Your task to perform on an android device: visit the assistant section in the google photos Image 0: 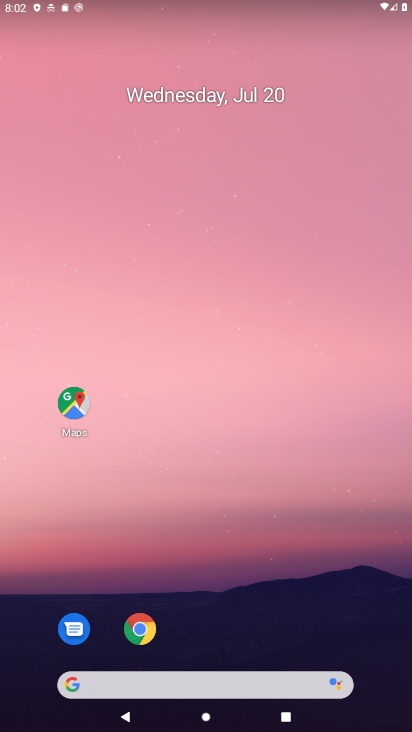
Step 0: drag from (237, 506) to (189, 354)
Your task to perform on an android device: visit the assistant section in the google photos Image 1: 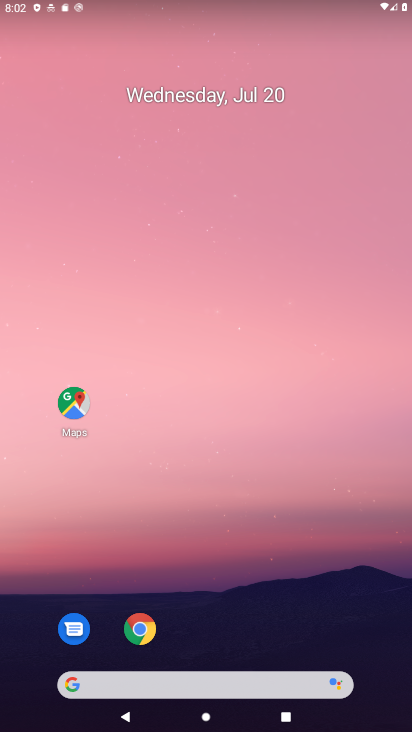
Step 1: click (191, 411)
Your task to perform on an android device: visit the assistant section in the google photos Image 2: 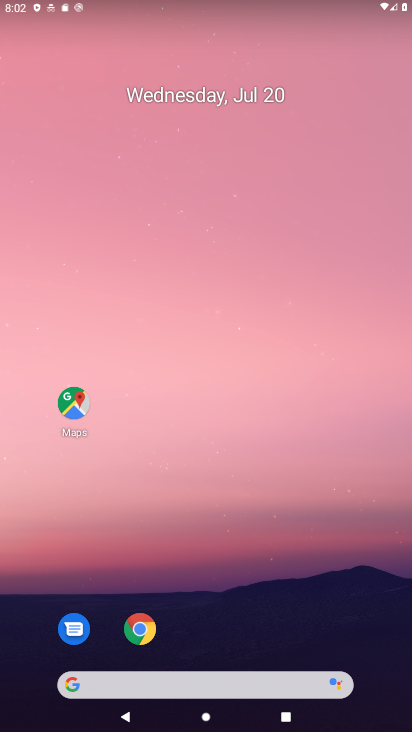
Step 2: drag from (225, 658) to (197, 239)
Your task to perform on an android device: visit the assistant section in the google photos Image 3: 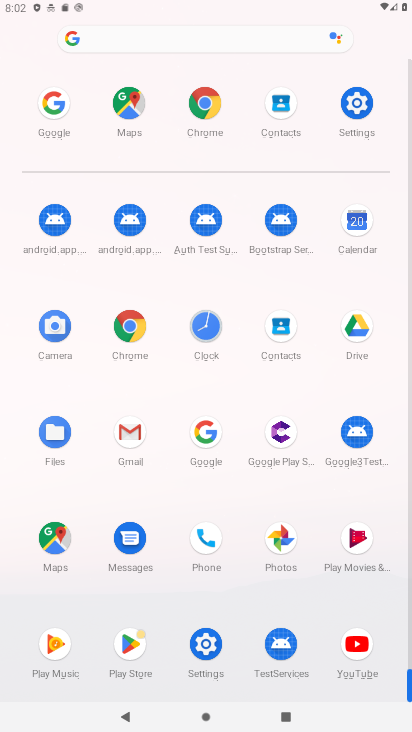
Step 3: click (277, 538)
Your task to perform on an android device: visit the assistant section in the google photos Image 4: 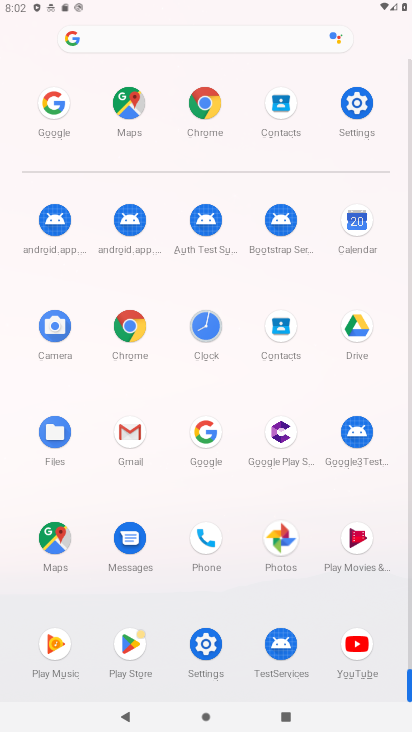
Step 4: click (287, 537)
Your task to perform on an android device: visit the assistant section in the google photos Image 5: 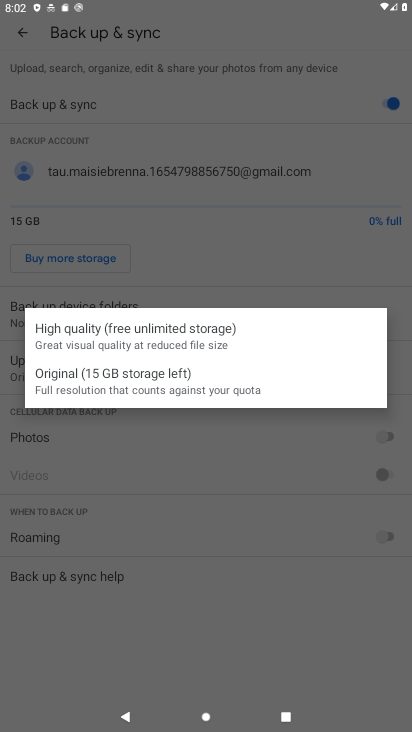
Step 5: press back button
Your task to perform on an android device: visit the assistant section in the google photos Image 6: 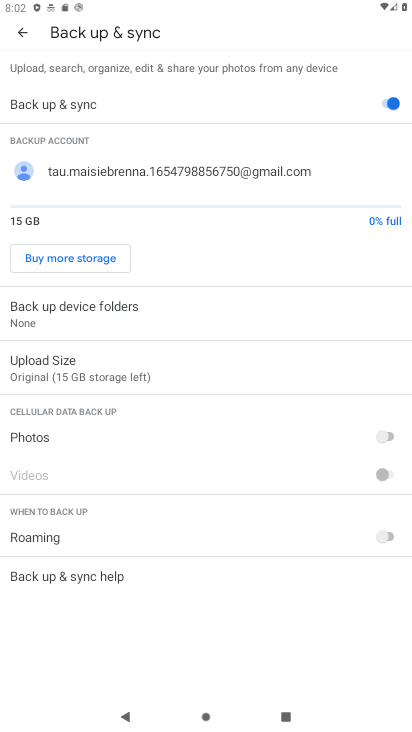
Step 6: click (24, 37)
Your task to perform on an android device: visit the assistant section in the google photos Image 7: 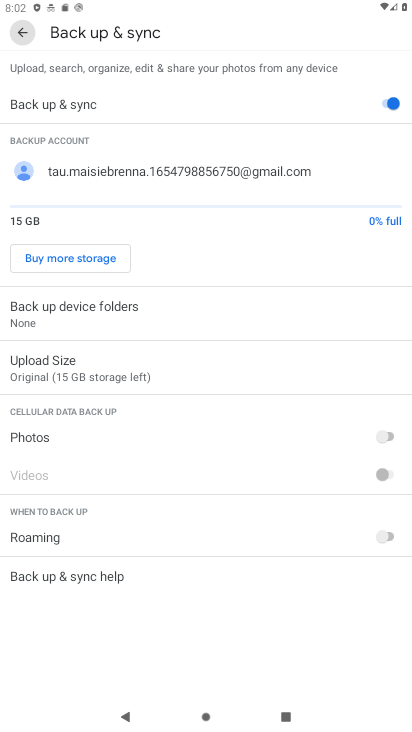
Step 7: click (23, 34)
Your task to perform on an android device: visit the assistant section in the google photos Image 8: 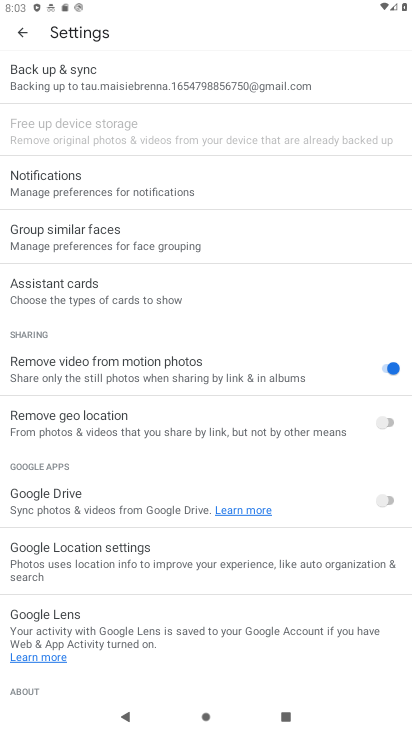
Step 8: click (23, 25)
Your task to perform on an android device: visit the assistant section in the google photos Image 9: 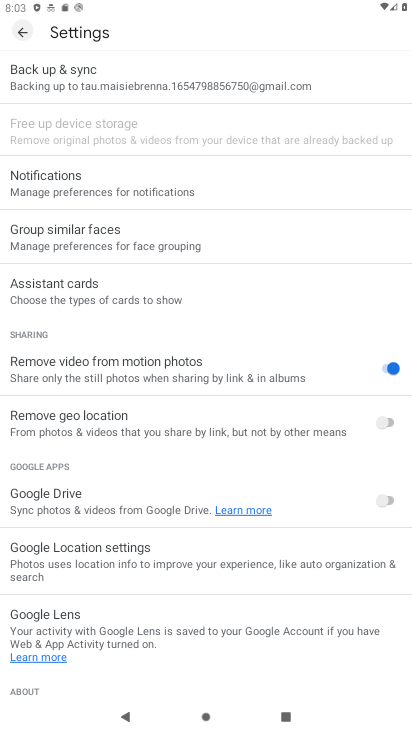
Step 9: click (24, 25)
Your task to perform on an android device: visit the assistant section in the google photos Image 10: 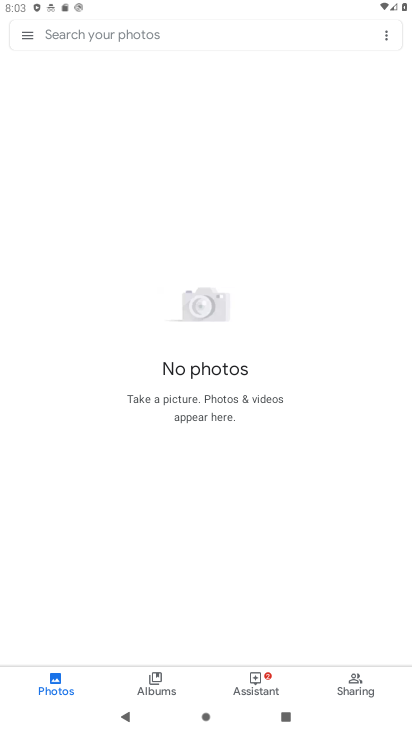
Step 10: click (254, 678)
Your task to perform on an android device: visit the assistant section in the google photos Image 11: 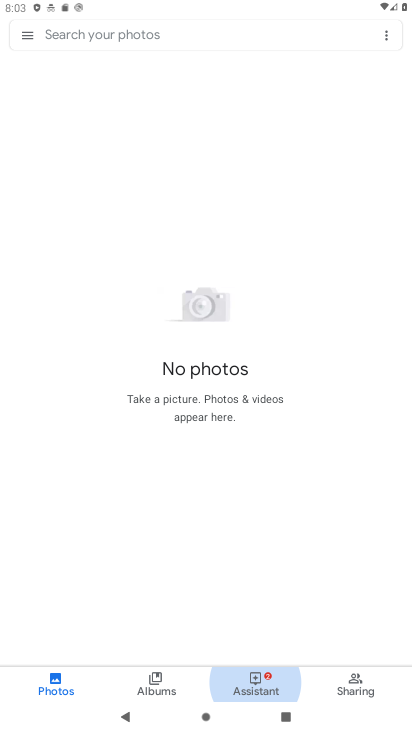
Step 11: click (254, 679)
Your task to perform on an android device: visit the assistant section in the google photos Image 12: 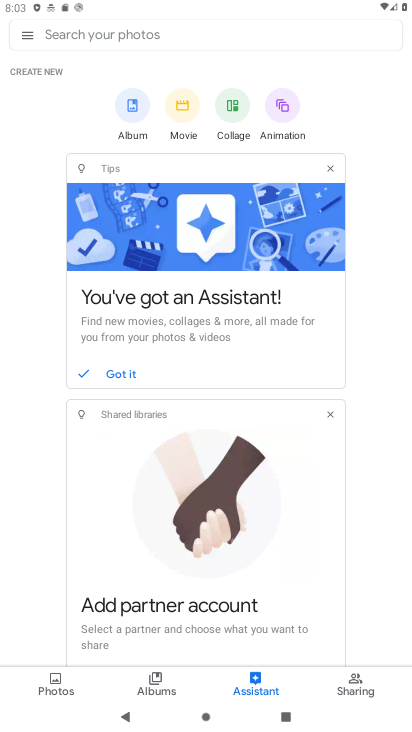
Step 12: task complete